Your task to perform on an android device: Open Yahoo.com Image 0: 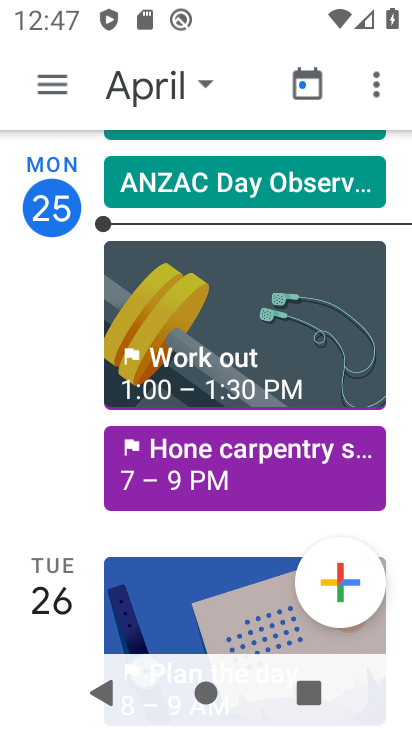
Step 0: press home button
Your task to perform on an android device: Open Yahoo.com Image 1: 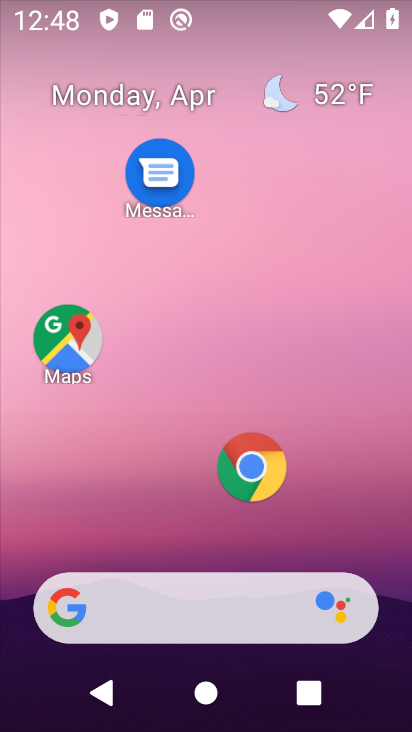
Step 1: click (253, 450)
Your task to perform on an android device: Open Yahoo.com Image 2: 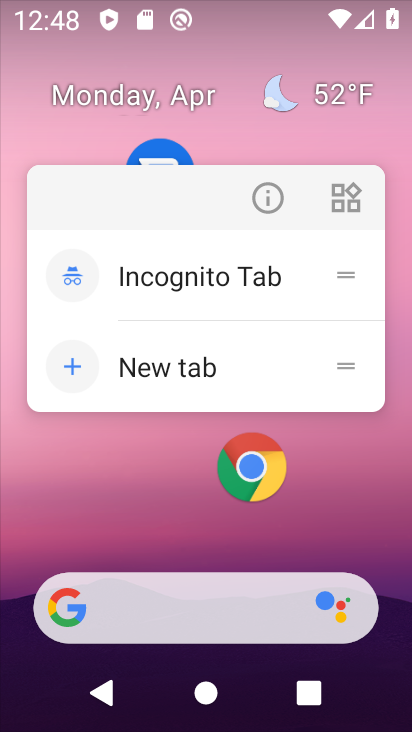
Step 2: click (241, 456)
Your task to perform on an android device: Open Yahoo.com Image 3: 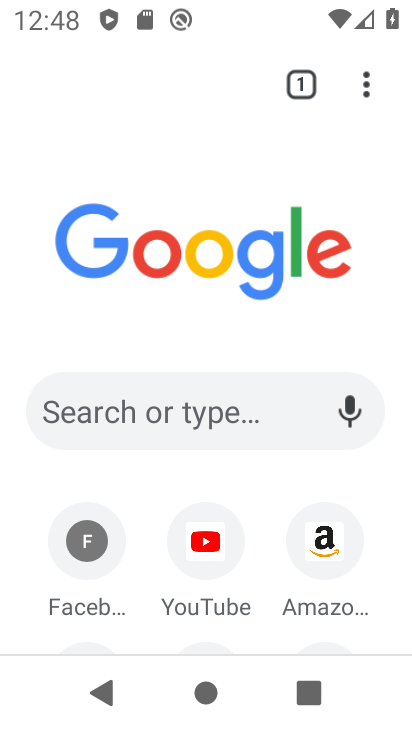
Step 3: drag from (143, 596) to (163, 308)
Your task to perform on an android device: Open Yahoo.com Image 4: 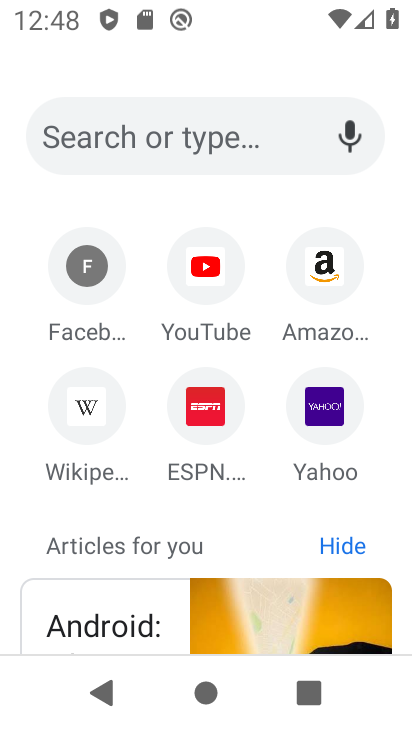
Step 4: click (301, 411)
Your task to perform on an android device: Open Yahoo.com Image 5: 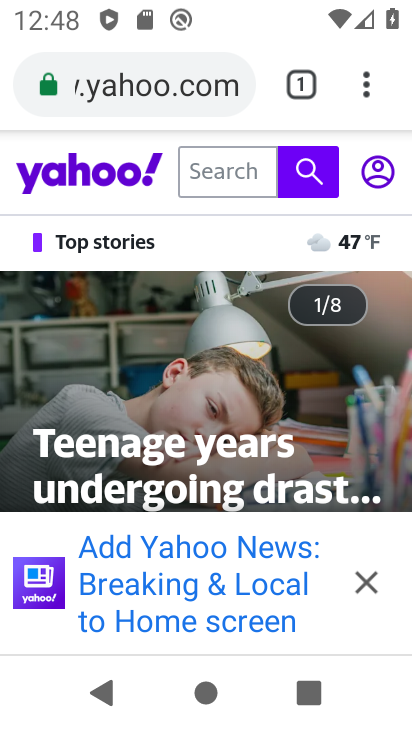
Step 5: task complete